Your task to perform on an android device: Add logitech g pro to the cart on target.com Image 0: 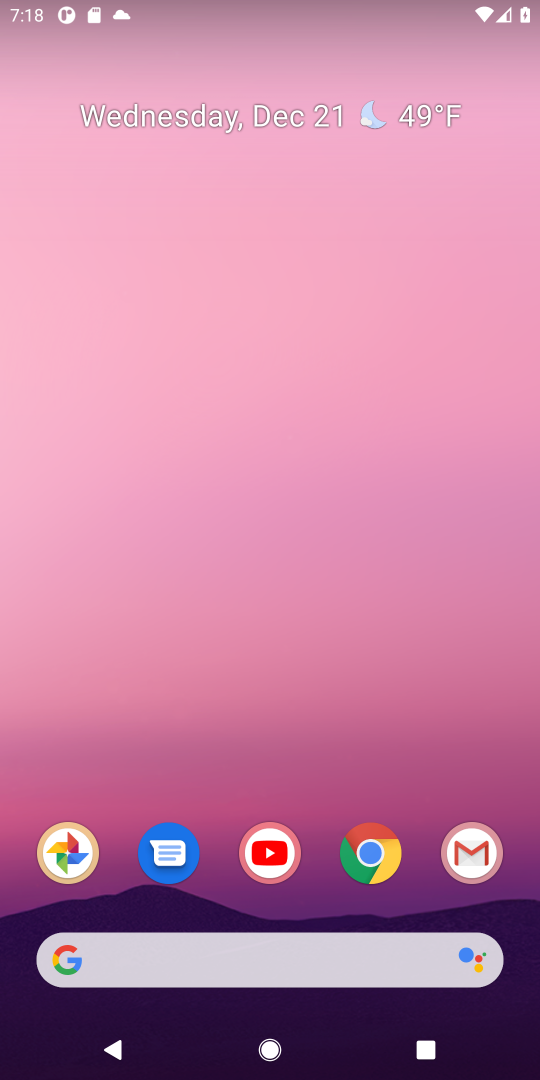
Step 0: click (372, 827)
Your task to perform on an android device: Add logitech g pro to the cart on target.com Image 1: 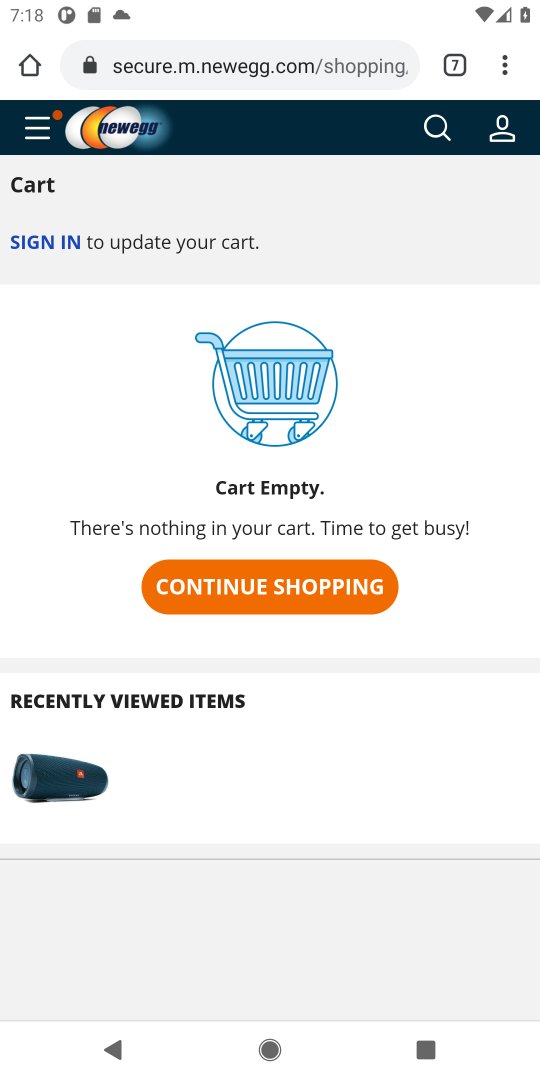
Step 1: click (455, 63)
Your task to perform on an android device: Add logitech g pro to the cart on target.com Image 2: 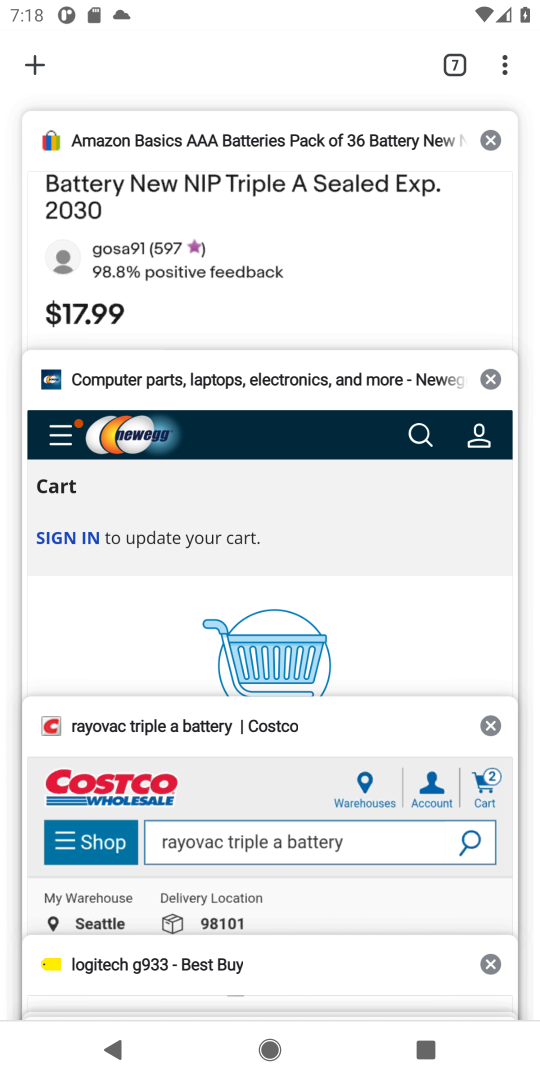
Step 2: drag from (145, 966) to (222, 513)
Your task to perform on an android device: Add logitech g pro to the cart on target.com Image 3: 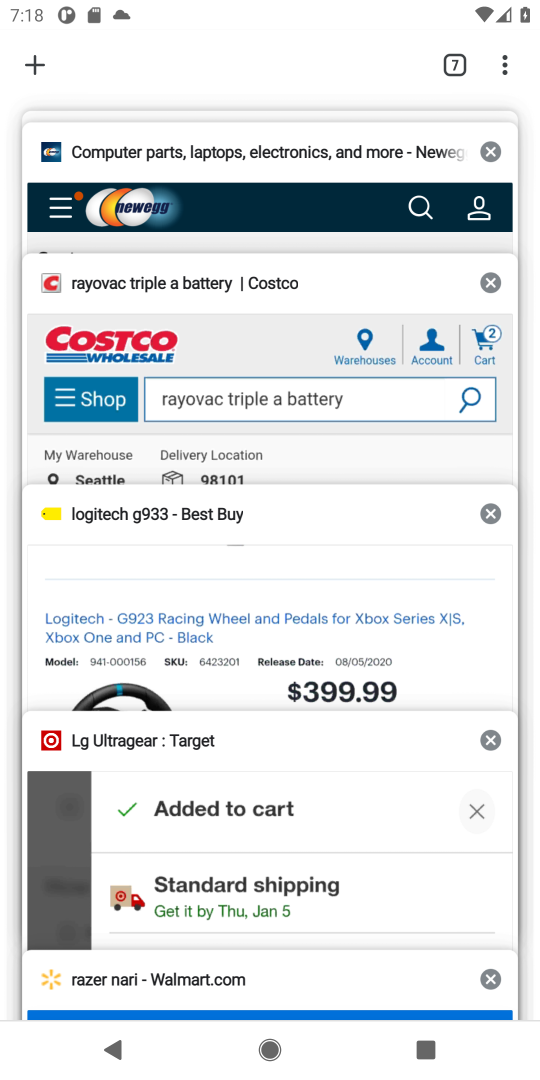
Step 3: click (191, 794)
Your task to perform on an android device: Add logitech g pro to the cart on target.com Image 4: 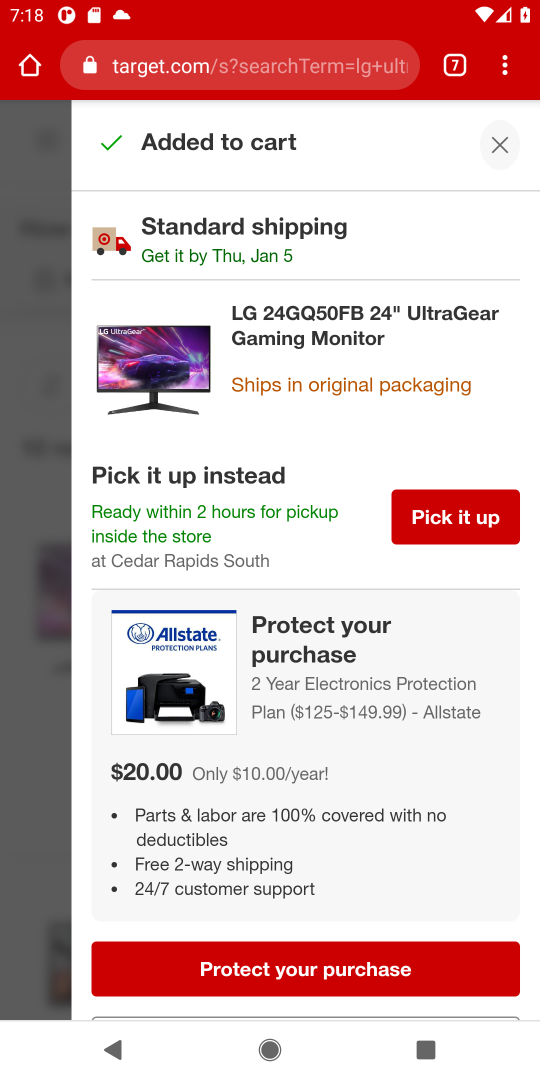
Step 4: click (499, 139)
Your task to perform on an android device: Add logitech g pro to the cart on target.com Image 5: 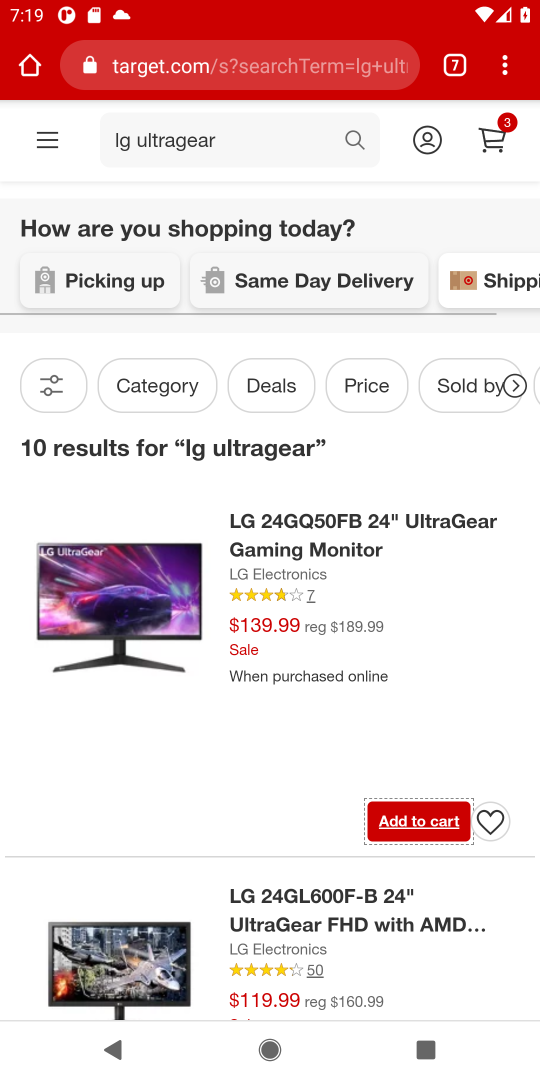
Step 5: click (291, 144)
Your task to perform on an android device: Add logitech g pro to the cart on target.com Image 6: 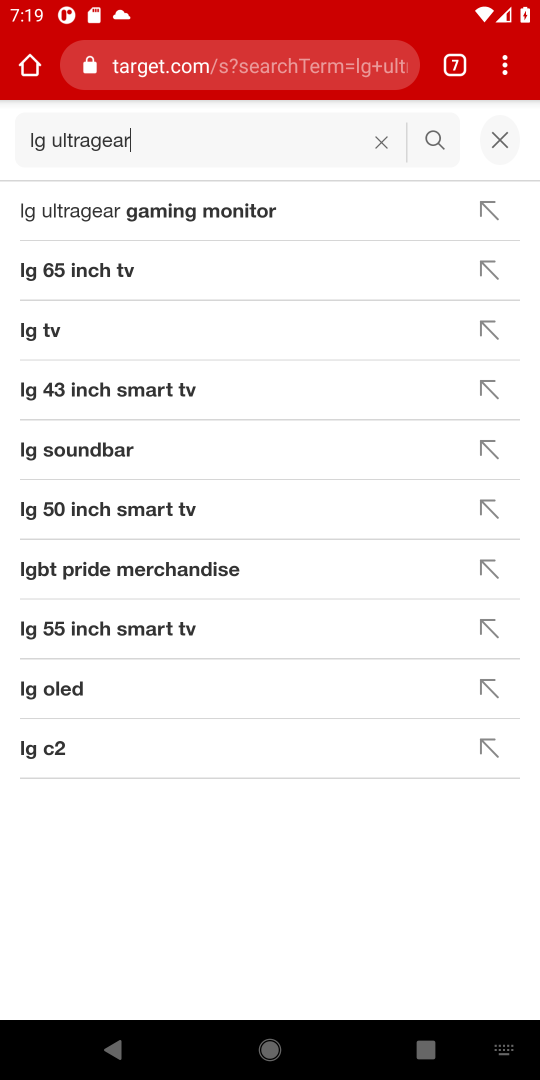
Step 6: click (382, 139)
Your task to perform on an android device: Add logitech g pro to the cart on target.com Image 7: 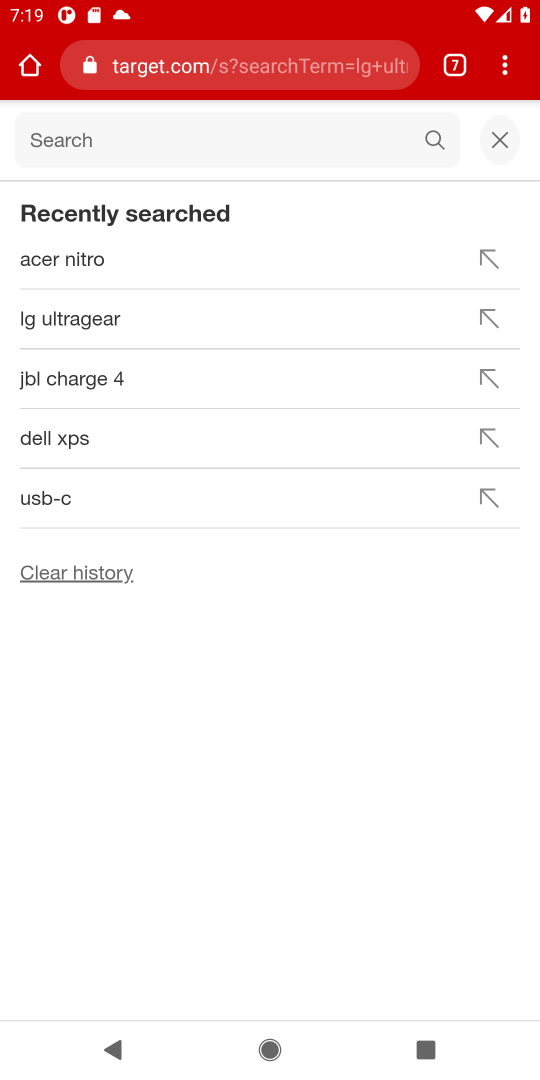
Step 7: type "logitech g pro"
Your task to perform on an android device: Add logitech g pro to the cart on target.com Image 8: 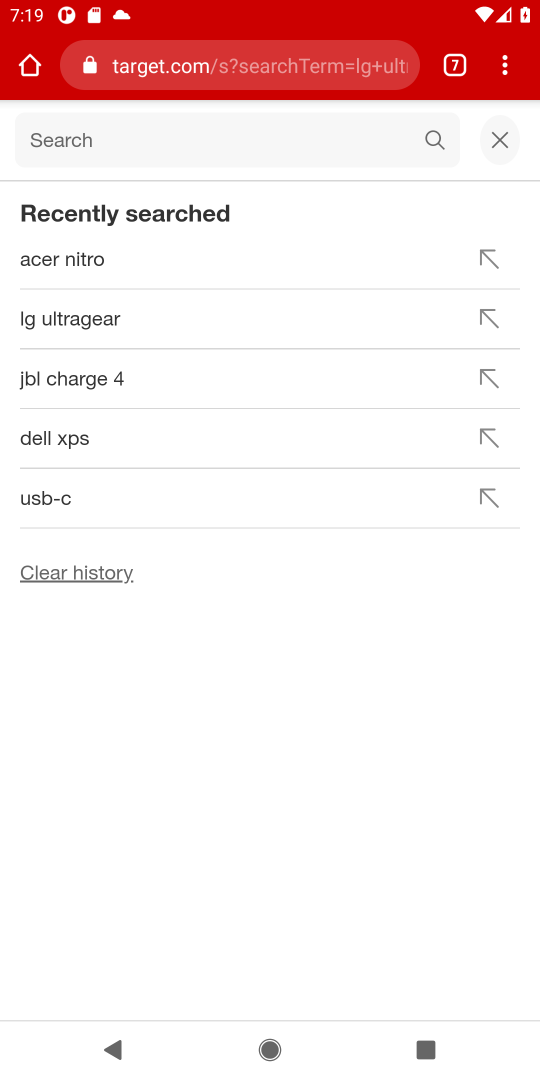
Step 8: click (177, 143)
Your task to perform on an android device: Add logitech g pro to the cart on target.com Image 9: 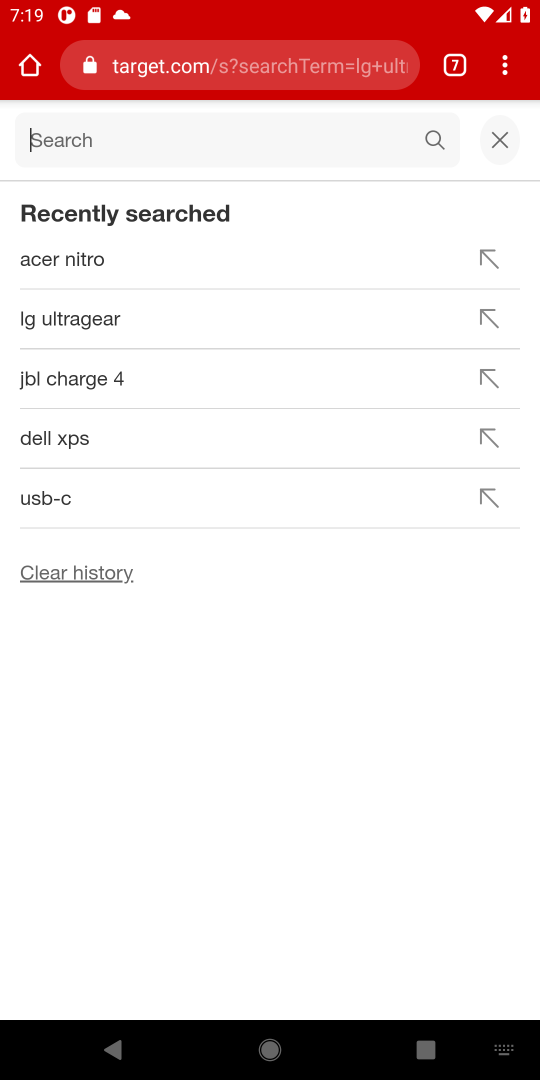
Step 9: type "logitech g pro"
Your task to perform on an android device: Add logitech g pro to the cart on target.com Image 10: 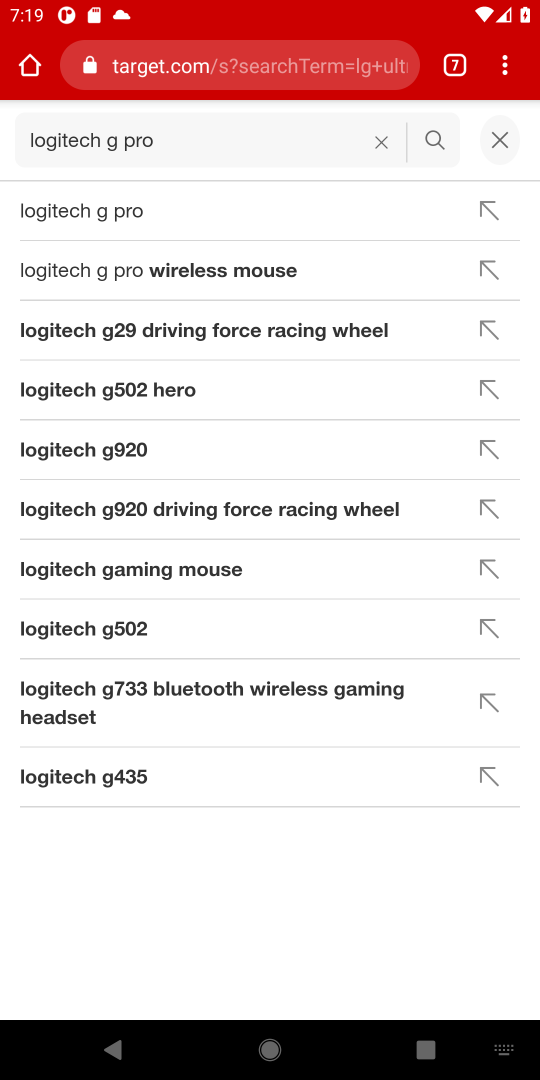
Step 10: click (60, 211)
Your task to perform on an android device: Add logitech g pro to the cart on target.com Image 11: 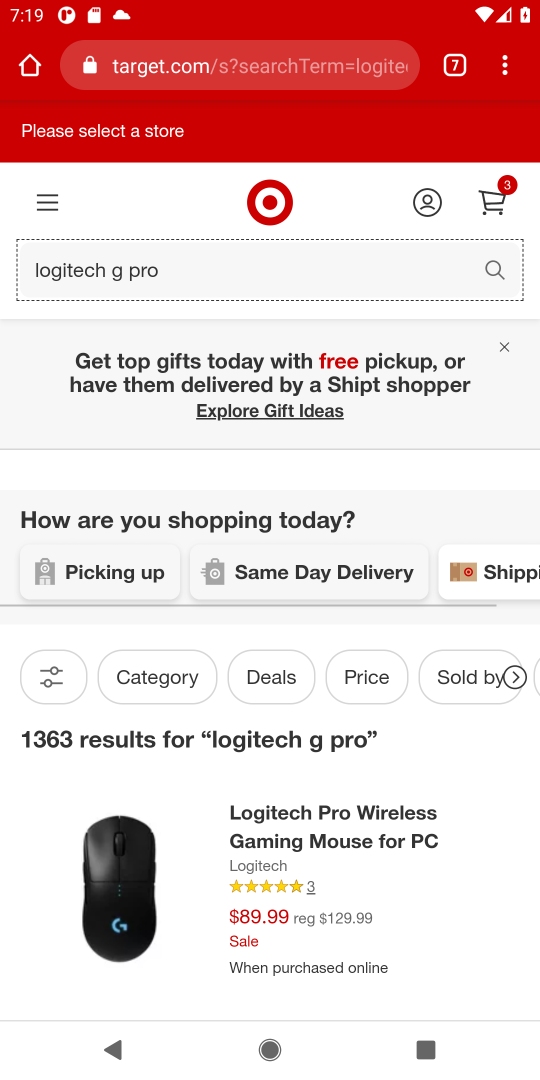
Step 11: drag from (456, 932) to (433, 564)
Your task to perform on an android device: Add logitech g pro to the cart on target.com Image 12: 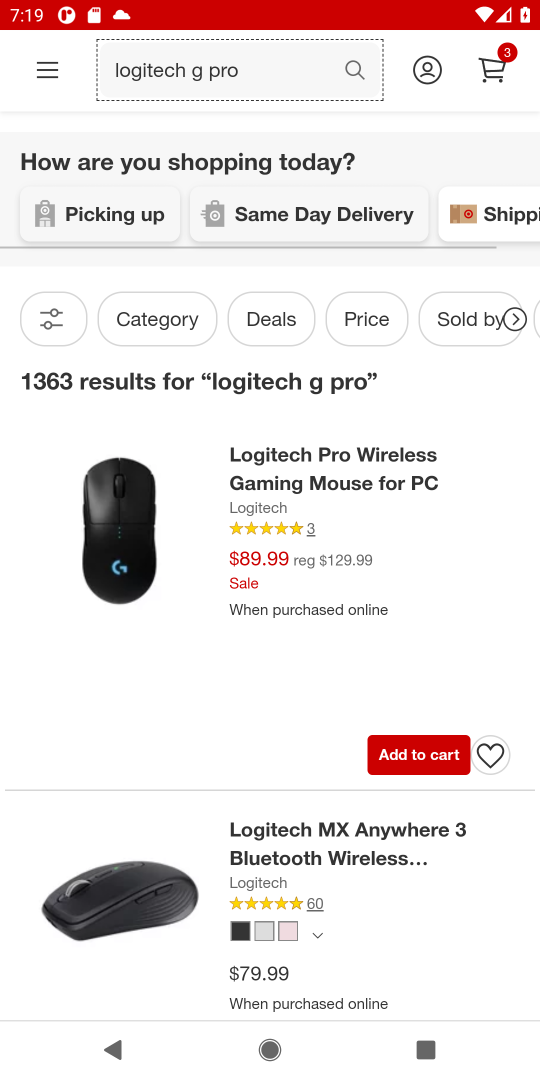
Step 12: click (423, 755)
Your task to perform on an android device: Add logitech g pro to the cart on target.com Image 13: 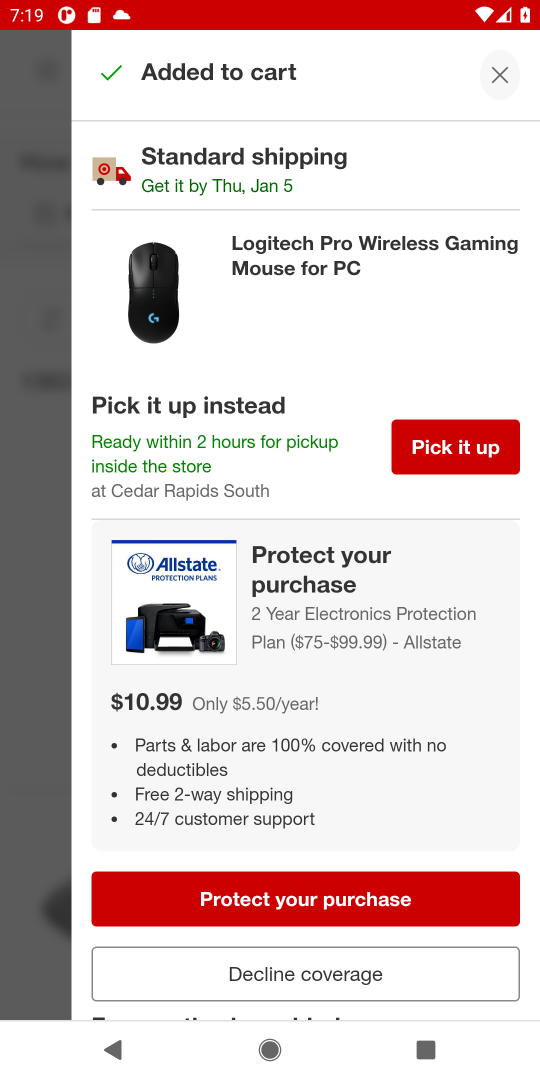
Step 13: task complete